Your task to perform on an android device: turn on improve location accuracy Image 0: 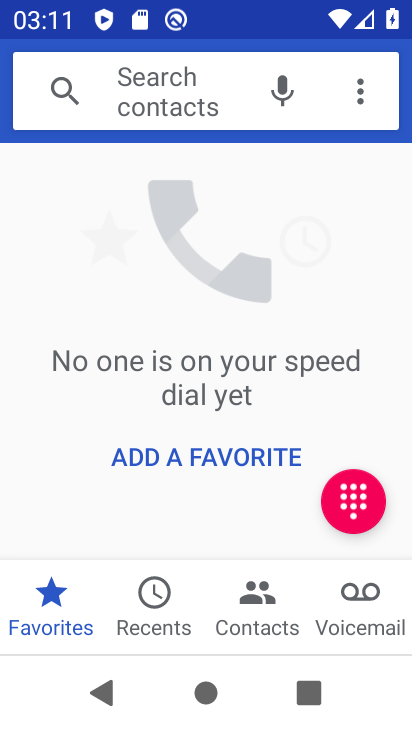
Step 0: press home button
Your task to perform on an android device: turn on improve location accuracy Image 1: 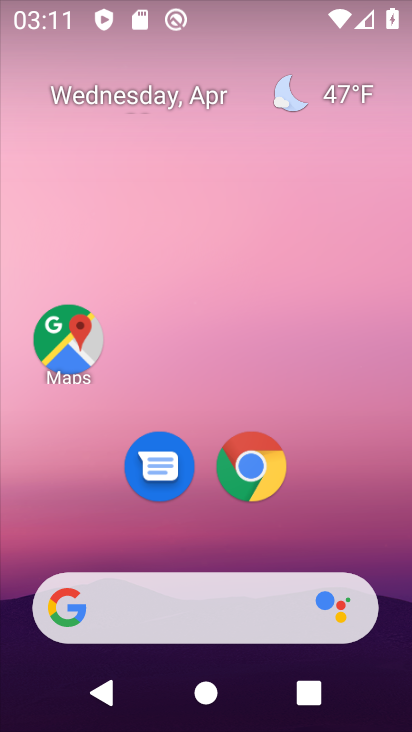
Step 1: drag from (296, 443) to (100, 100)
Your task to perform on an android device: turn on improve location accuracy Image 2: 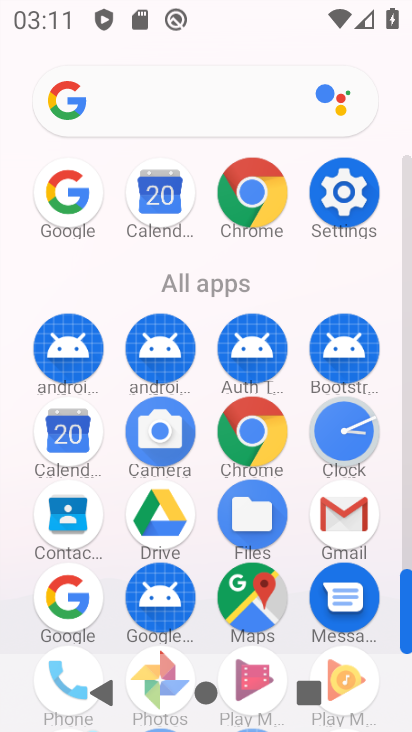
Step 2: click (326, 174)
Your task to perform on an android device: turn on improve location accuracy Image 3: 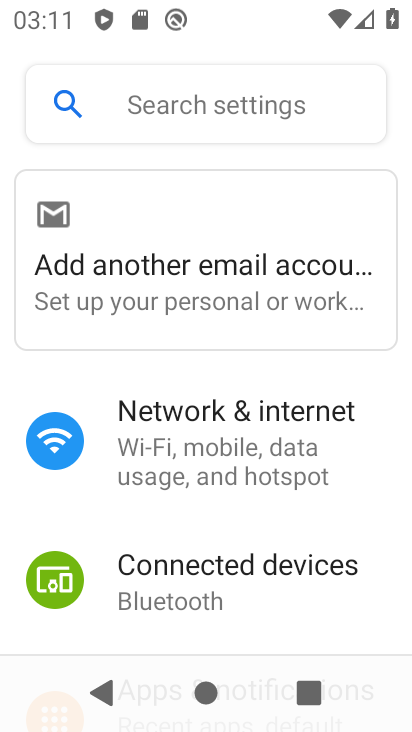
Step 3: drag from (239, 583) to (209, 191)
Your task to perform on an android device: turn on improve location accuracy Image 4: 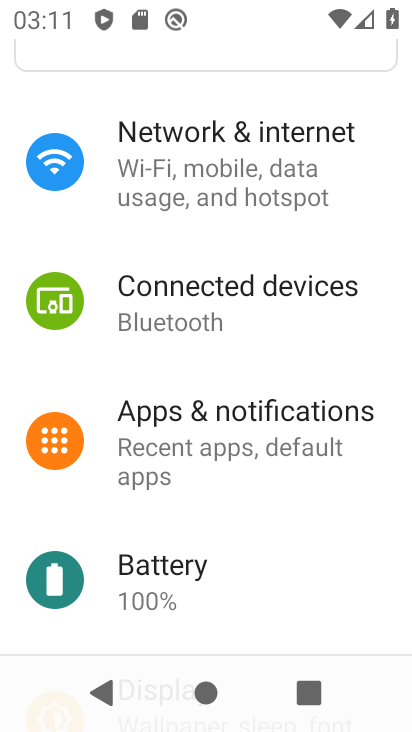
Step 4: drag from (186, 584) to (158, 277)
Your task to perform on an android device: turn on improve location accuracy Image 5: 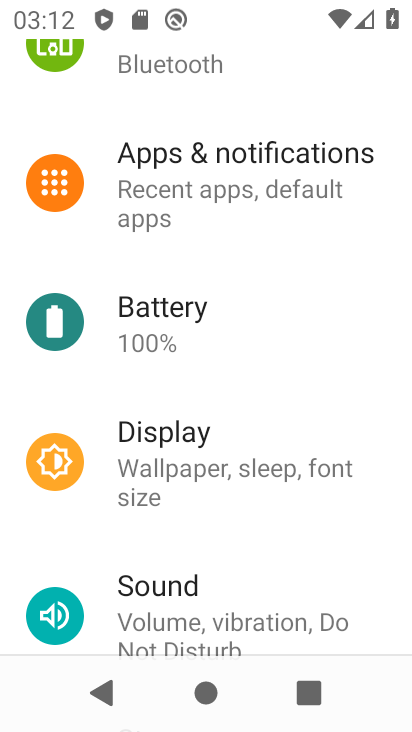
Step 5: drag from (203, 533) to (155, 162)
Your task to perform on an android device: turn on improve location accuracy Image 6: 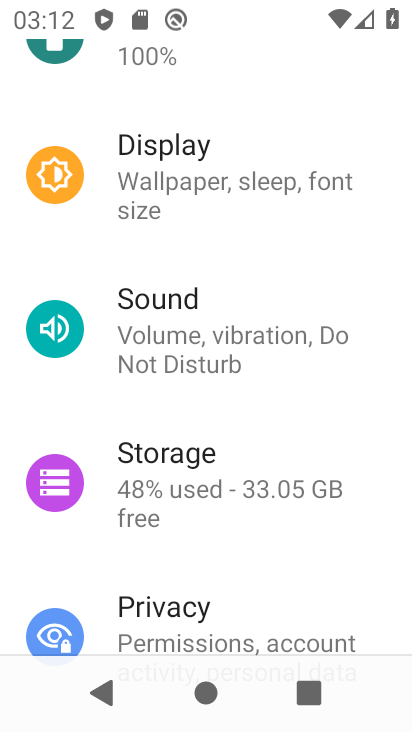
Step 6: drag from (115, 619) to (116, 190)
Your task to perform on an android device: turn on improve location accuracy Image 7: 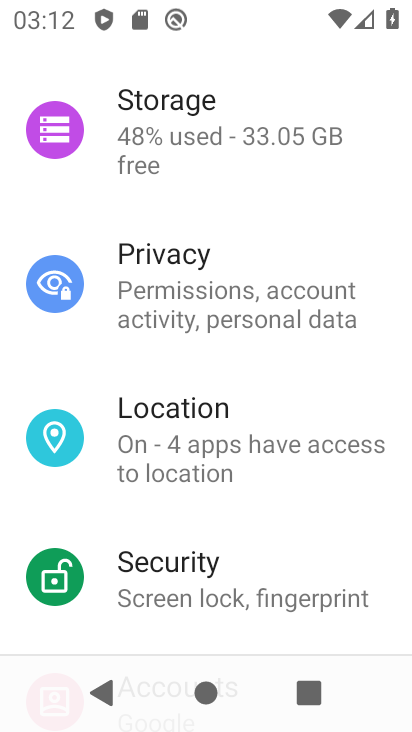
Step 7: click (198, 454)
Your task to perform on an android device: turn on improve location accuracy Image 8: 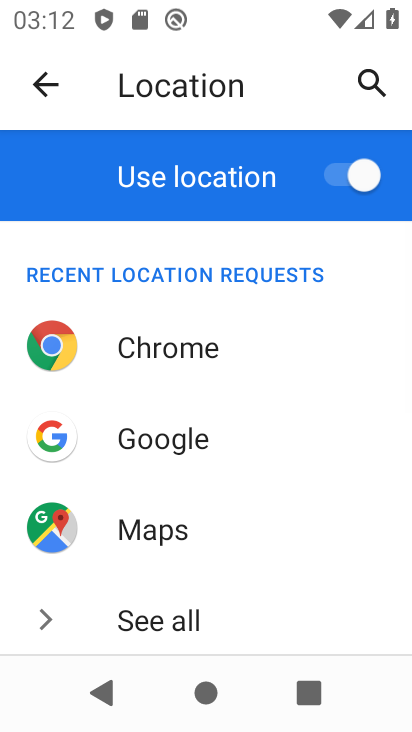
Step 8: drag from (239, 592) to (183, 109)
Your task to perform on an android device: turn on improve location accuracy Image 9: 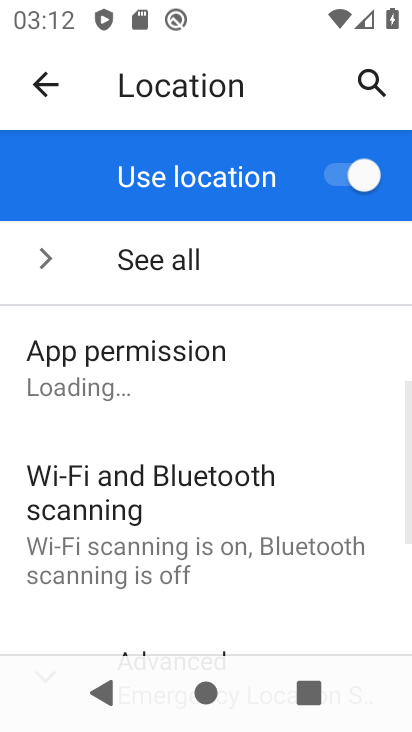
Step 9: drag from (171, 527) to (201, 267)
Your task to perform on an android device: turn on improve location accuracy Image 10: 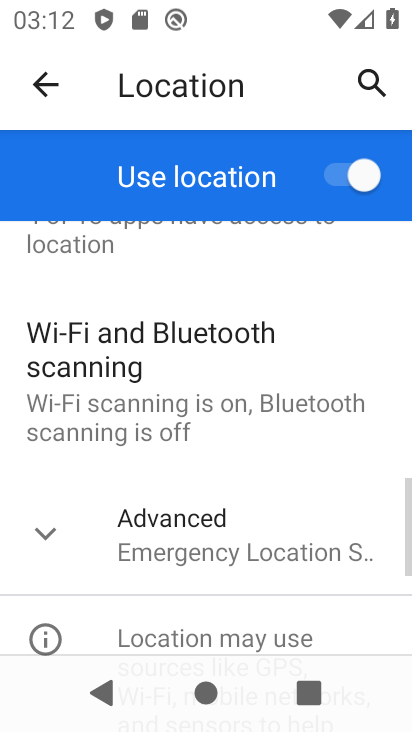
Step 10: click (185, 552)
Your task to perform on an android device: turn on improve location accuracy Image 11: 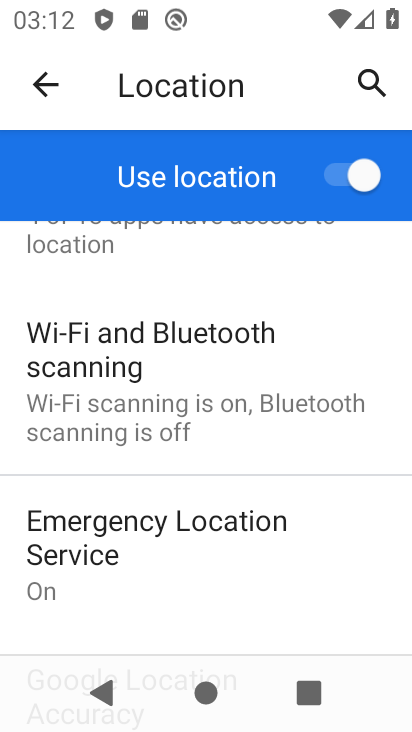
Step 11: drag from (150, 620) to (150, 186)
Your task to perform on an android device: turn on improve location accuracy Image 12: 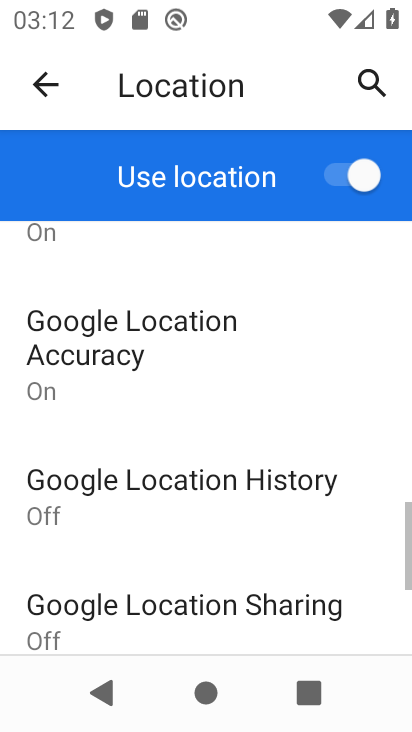
Step 12: click (162, 324)
Your task to perform on an android device: turn on improve location accuracy Image 13: 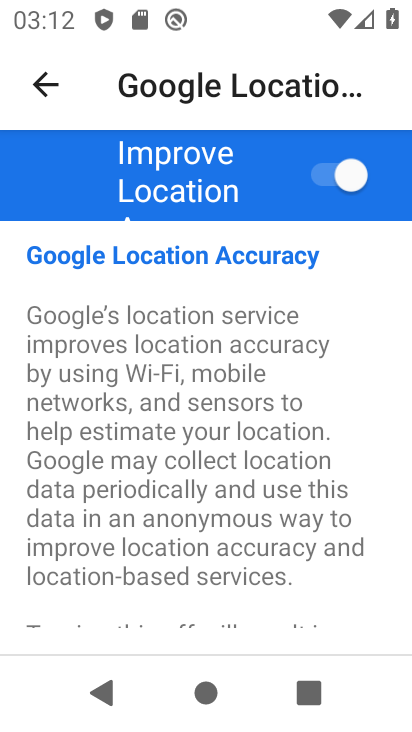
Step 13: task complete